Your task to perform on an android device: Open Android settings Image 0: 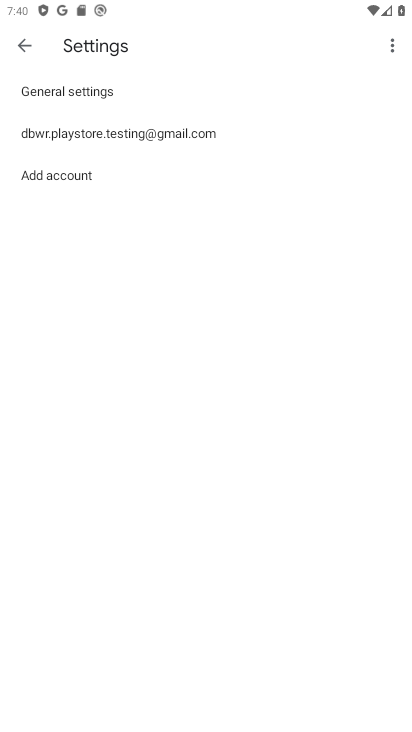
Step 0: press home button
Your task to perform on an android device: Open Android settings Image 1: 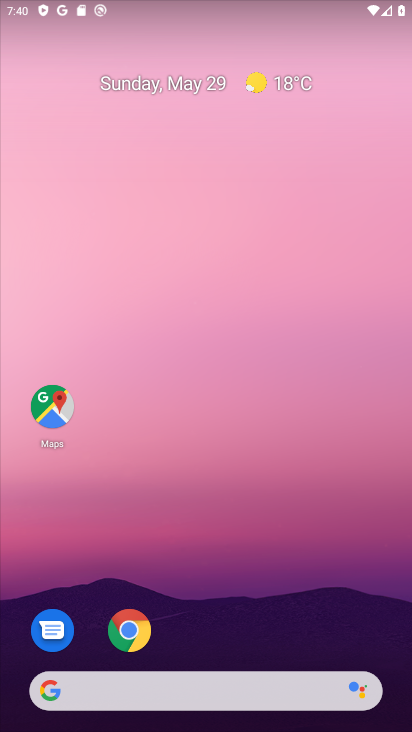
Step 1: drag from (224, 730) to (224, 117)
Your task to perform on an android device: Open Android settings Image 2: 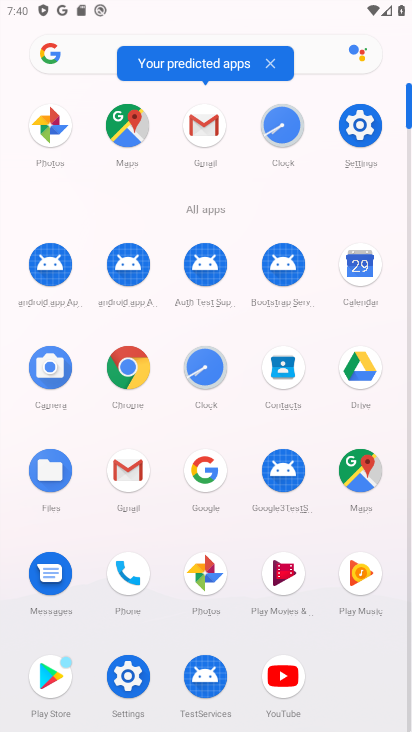
Step 2: click (358, 120)
Your task to perform on an android device: Open Android settings Image 3: 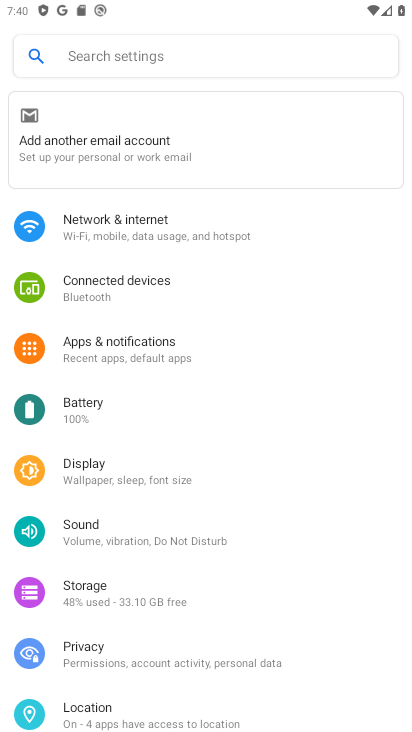
Step 3: task complete